Your task to perform on an android device: turn on bluetooth scan Image 0: 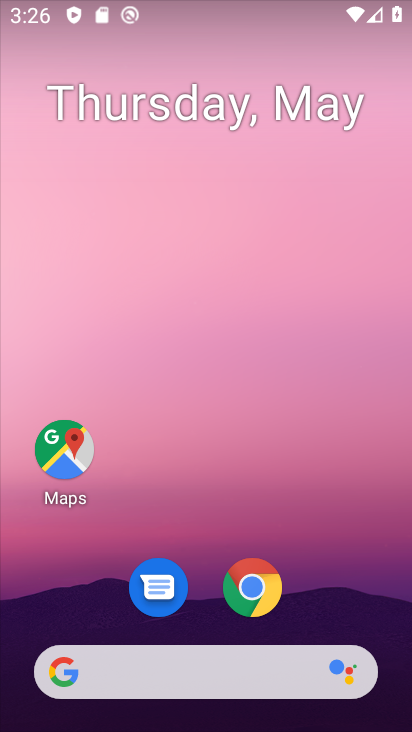
Step 0: drag from (322, 545) to (295, 6)
Your task to perform on an android device: turn on bluetooth scan Image 1: 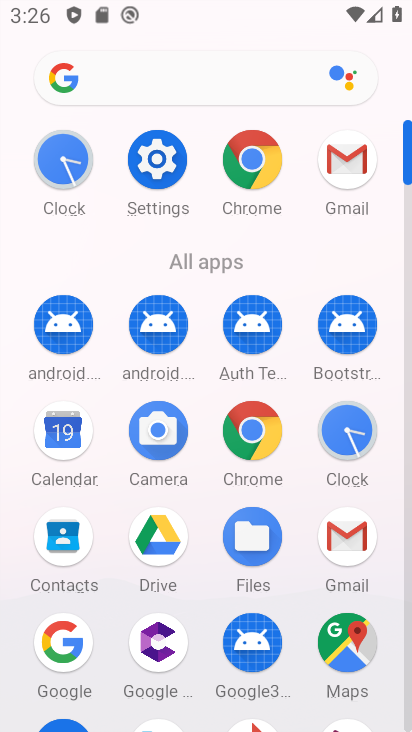
Step 1: drag from (6, 464) to (5, 249)
Your task to perform on an android device: turn on bluetooth scan Image 2: 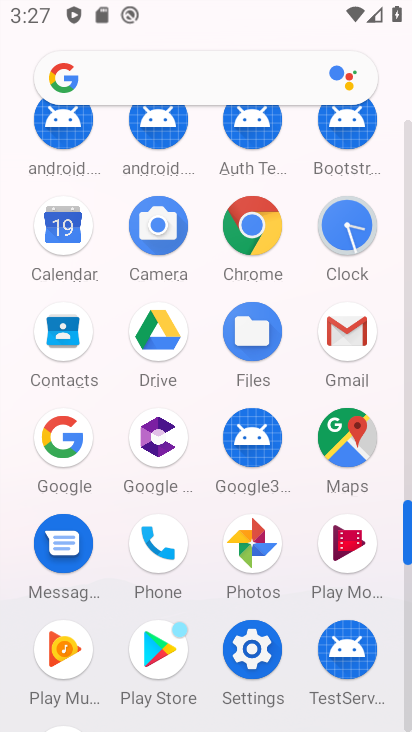
Step 2: click (248, 642)
Your task to perform on an android device: turn on bluetooth scan Image 3: 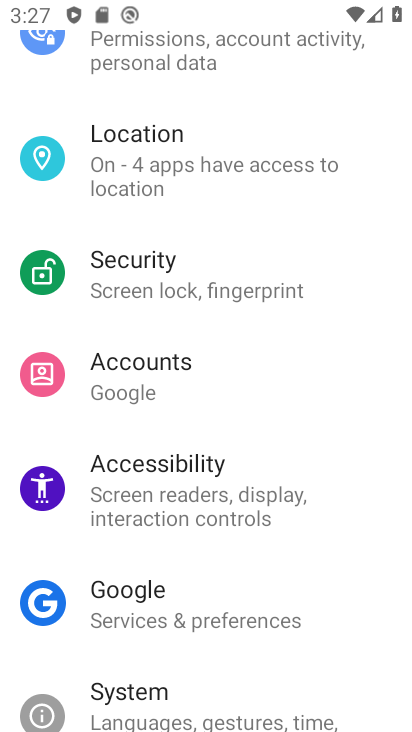
Step 3: drag from (265, 65) to (259, 574)
Your task to perform on an android device: turn on bluetooth scan Image 4: 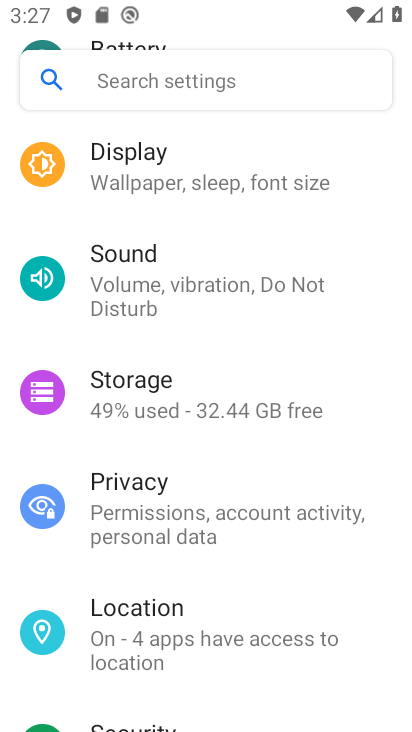
Step 4: drag from (248, 420) to (248, 559)
Your task to perform on an android device: turn on bluetooth scan Image 5: 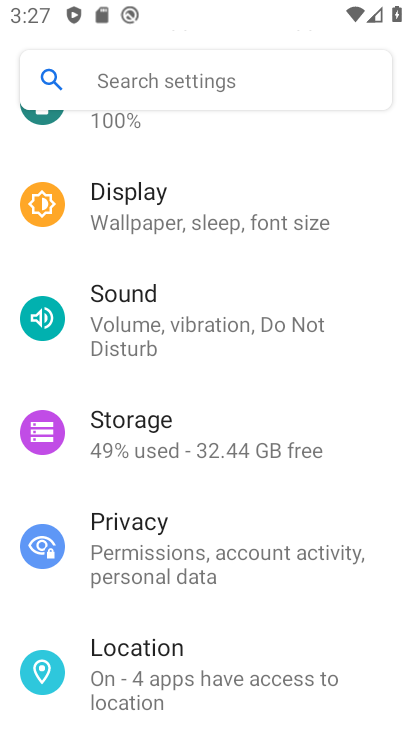
Step 5: click (151, 682)
Your task to perform on an android device: turn on bluetooth scan Image 6: 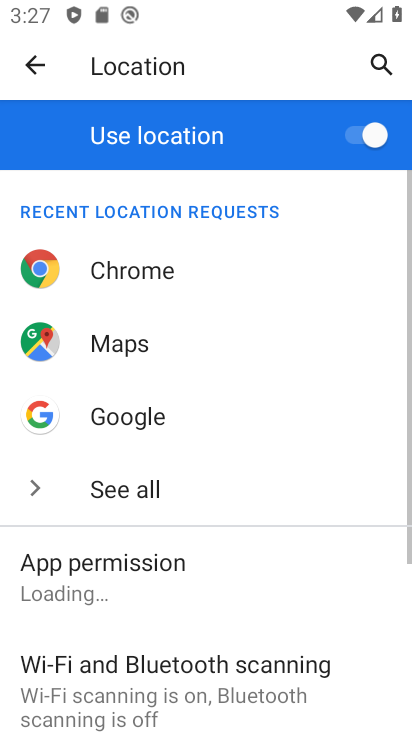
Step 6: click (168, 675)
Your task to perform on an android device: turn on bluetooth scan Image 7: 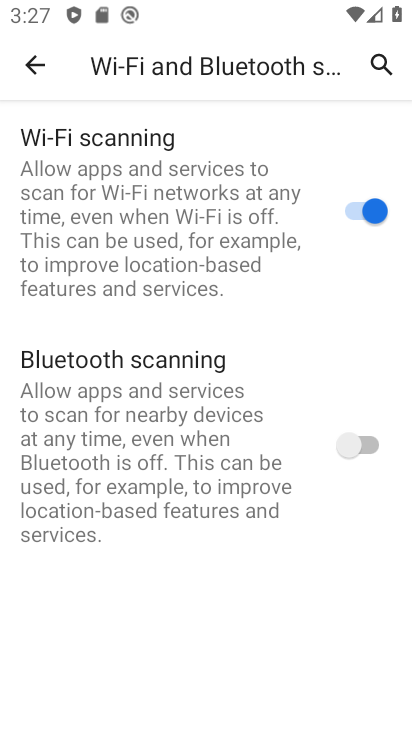
Step 7: click (356, 451)
Your task to perform on an android device: turn on bluetooth scan Image 8: 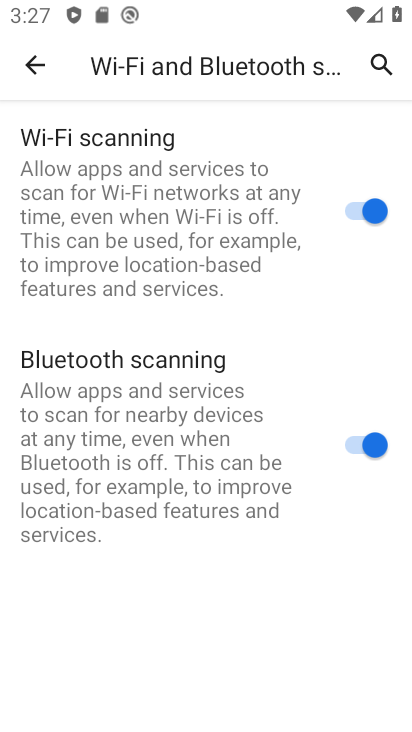
Step 8: task complete